Your task to perform on an android device: create a new album in the google photos Image 0: 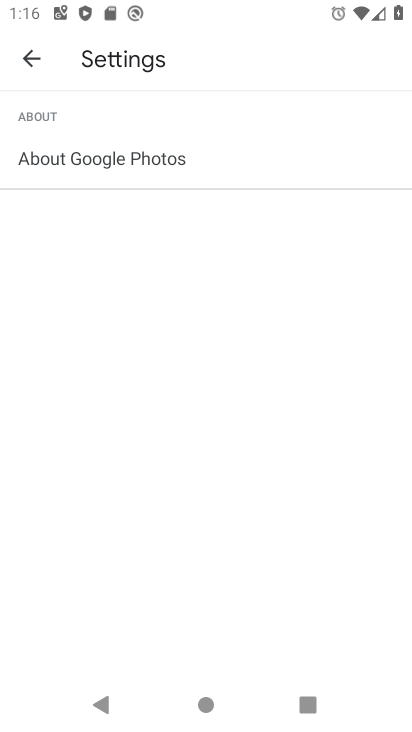
Step 0: press home button
Your task to perform on an android device: create a new album in the google photos Image 1: 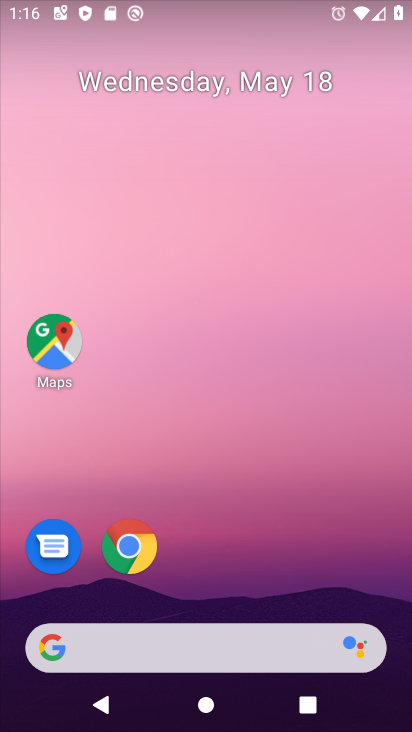
Step 1: drag from (197, 632) to (197, 81)
Your task to perform on an android device: create a new album in the google photos Image 2: 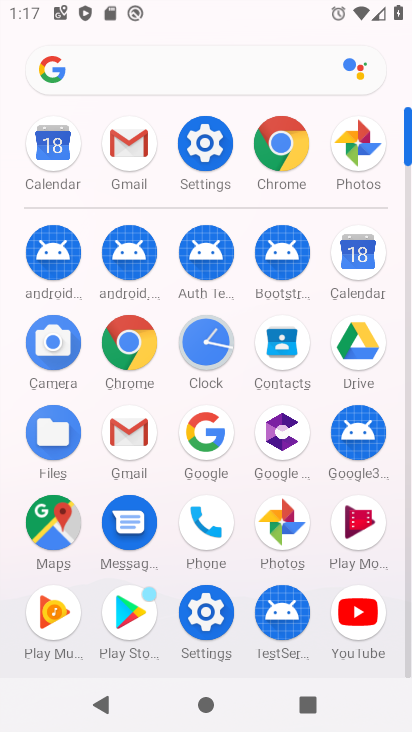
Step 2: click (285, 532)
Your task to perform on an android device: create a new album in the google photos Image 3: 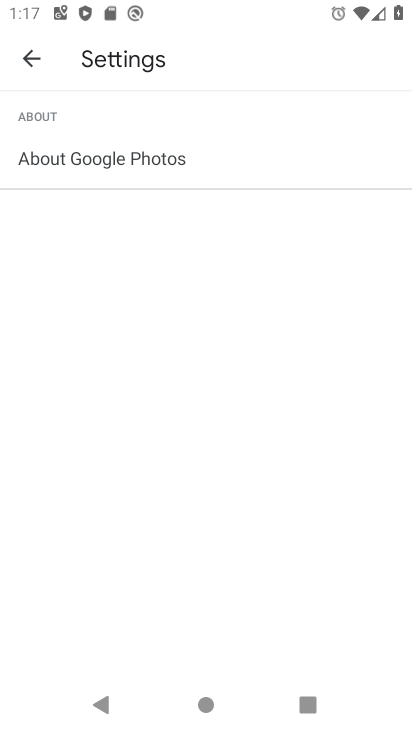
Step 3: click (23, 59)
Your task to perform on an android device: create a new album in the google photos Image 4: 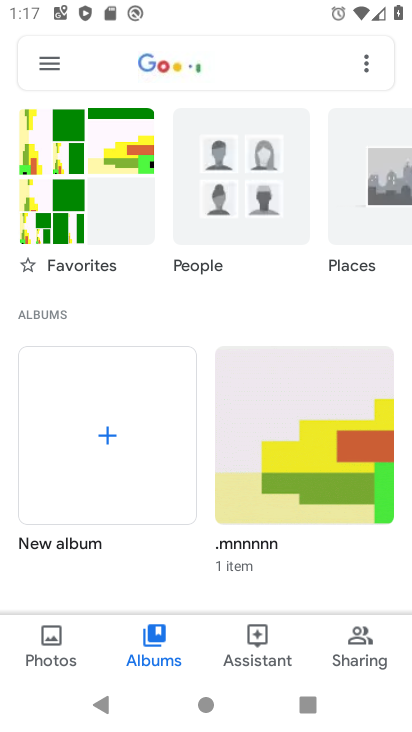
Step 4: click (107, 437)
Your task to perform on an android device: create a new album in the google photos Image 5: 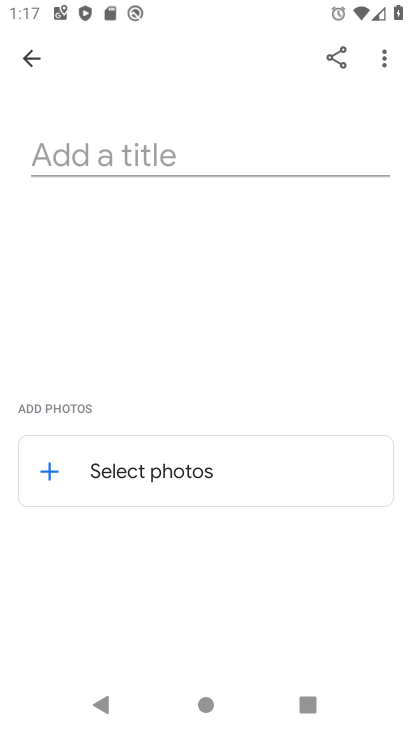
Step 5: click (269, 143)
Your task to perform on an android device: create a new album in the google photos Image 6: 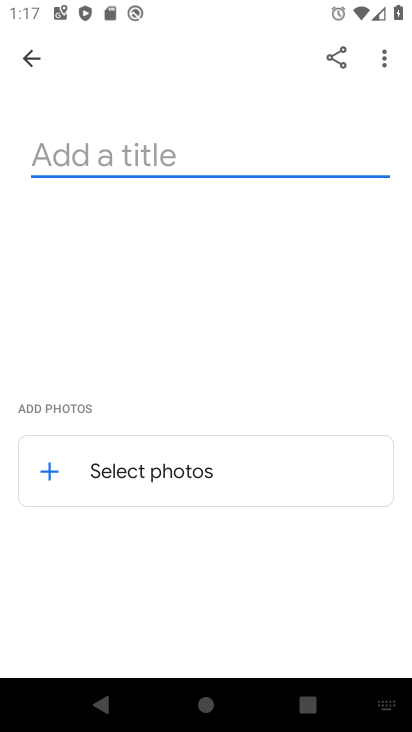
Step 6: type "ffjk"
Your task to perform on an android device: create a new album in the google photos Image 7: 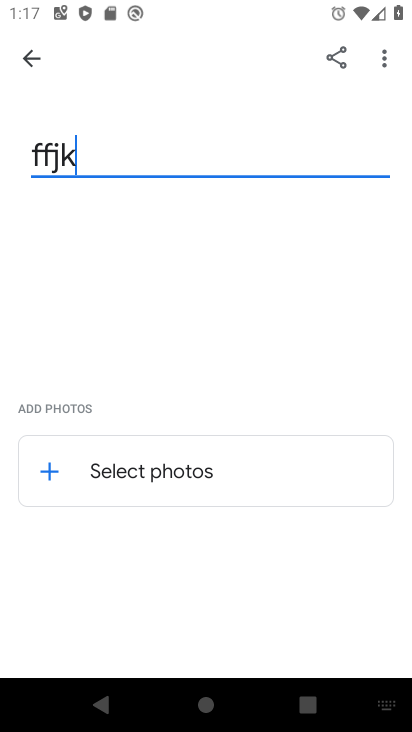
Step 7: click (53, 471)
Your task to perform on an android device: create a new album in the google photos Image 8: 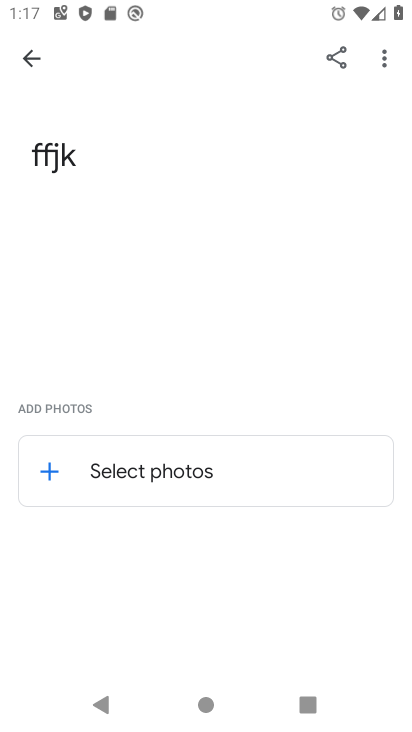
Step 8: click (50, 476)
Your task to perform on an android device: create a new album in the google photos Image 9: 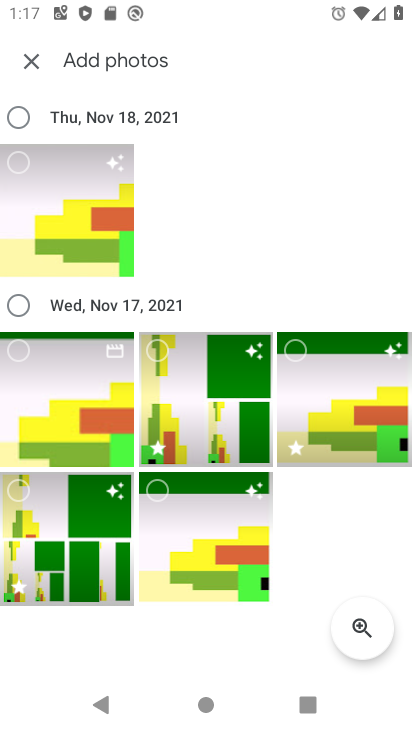
Step 9: click (6, 362)
Your task to perform on an android device: create a new album in the google photos Image 10: 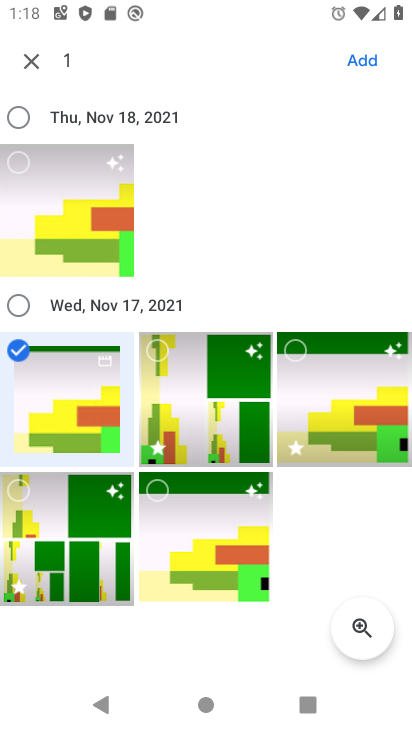
Step 10: click (174, 350)
Your task to perform on an android device: create a new album in the google photos Image 11: 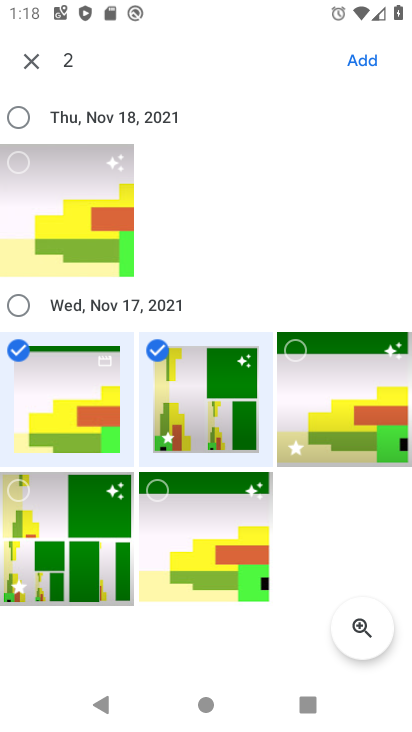
Step 11: click (359, 68)
Your task to perform on an android device: create a new album in the google photos Image 12: 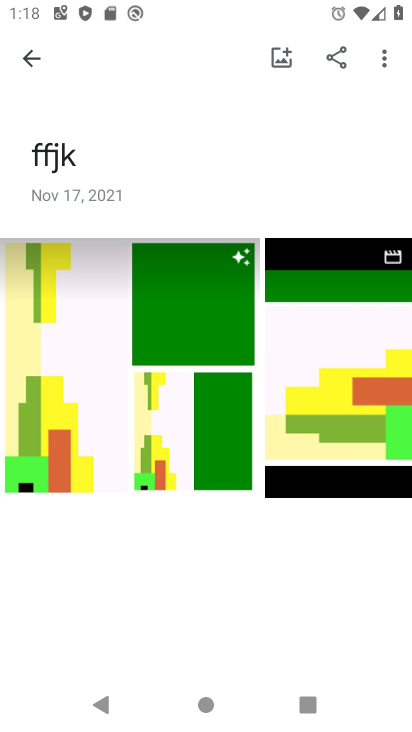
Step 12: task complete